Your task to perform on an android device: Open maps Image 0: 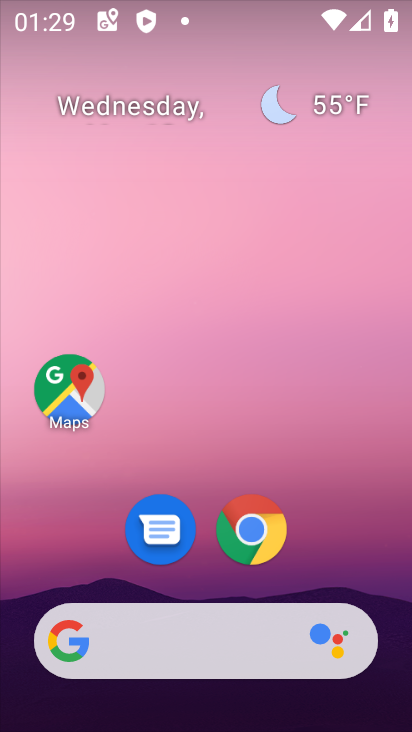
Step 0: drag from (172, 719) to (176, 213)
Your task to perform on an android device: Open maps Image 1: 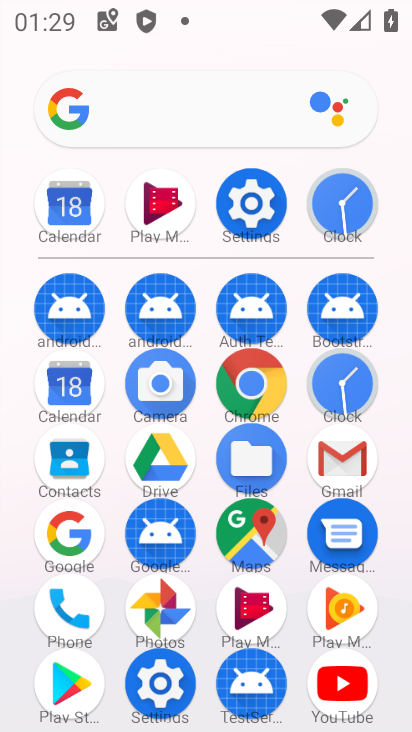
Step 1: click (245, 538)
Your task to perform on an android device: Open maps Image 2: 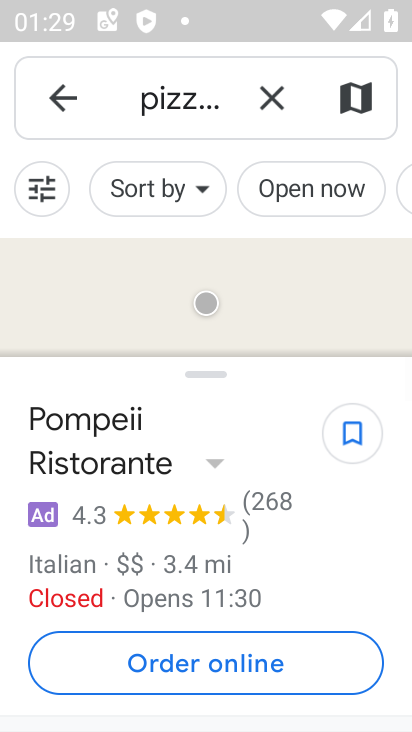
Step 2: task complete